Your task to perform on an android device: Go to internet settings Image 0: 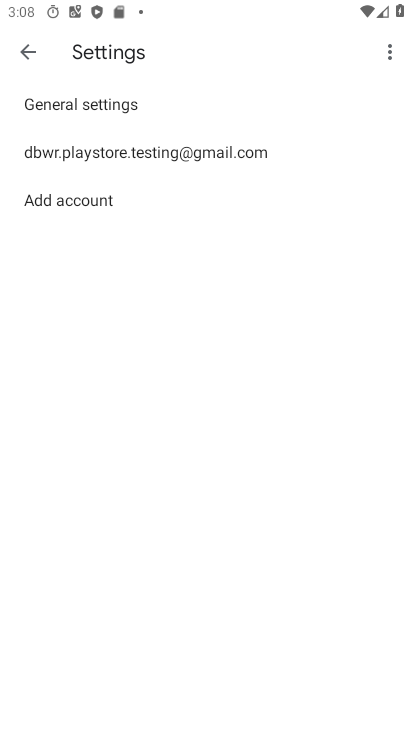
Step 0: press home button
Your task to perform on an android device: Go to internet settings Image 1: 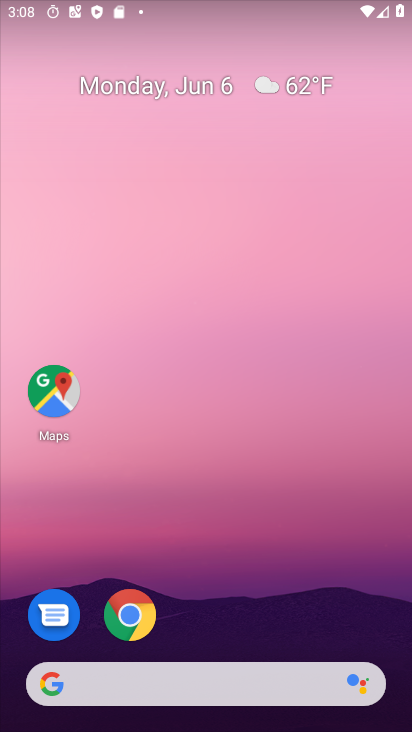
Step 1: click (283, 165)
Your task to perform on an android device: Go to internet settings Image 2: 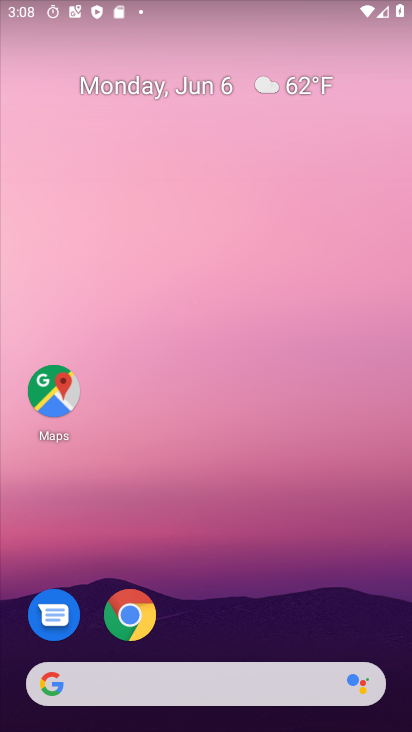
Step 2: drag from (186, 672) to (268, 92)
Your task to perform on an android device: Go to internet settings Image 3: 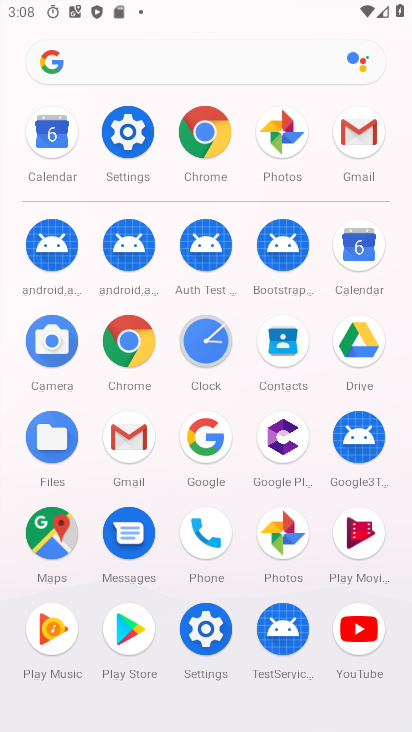
Step 3: click (106, 127)
Your task to perform on an android device: Go to internet settings Image 4: 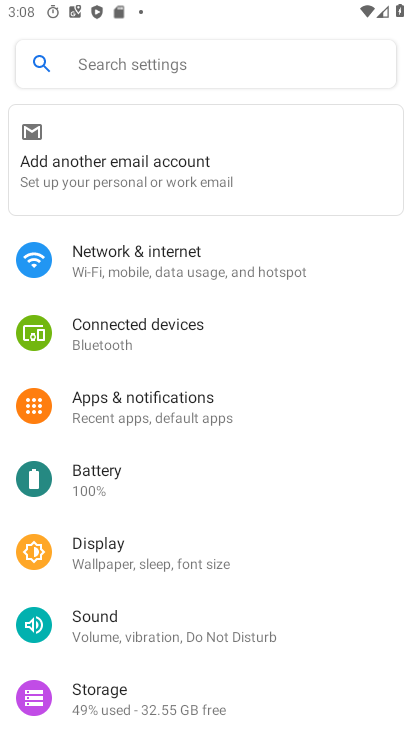
Step 4: click (227, 271)
Your task to perform on an android device: Go to internet settings Image 5: 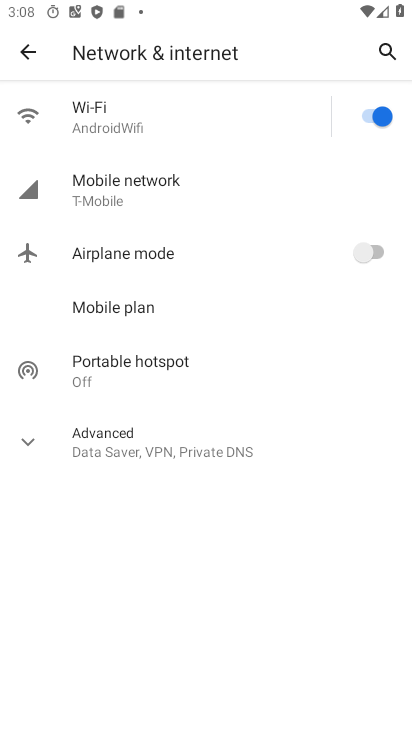
Step 5: task complete